Your task to perform on an android device: turn off location Image 0: 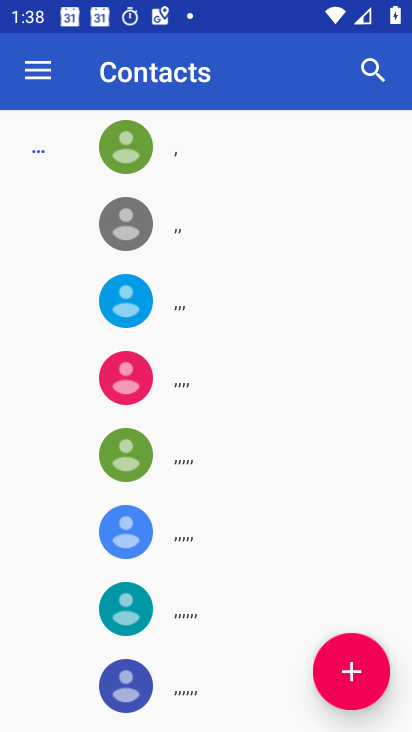
Step 0: press home button
Your task to perform on an android device: turn off location Image 1: 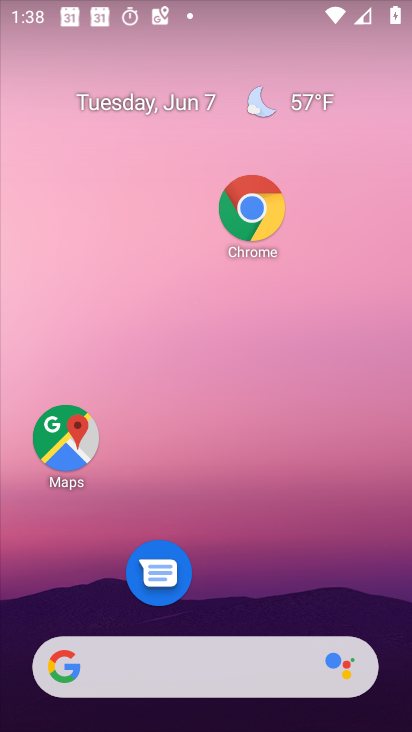
Step 1: drag from (209, 590) to (211, 362)
Your task to perform on an android device: turn off location Image 2: 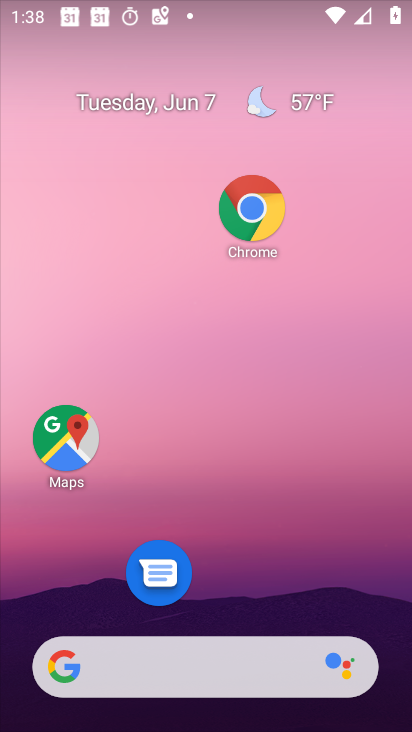
Step 2: drag from (214, 603) to (214, 217)
Your task to perform on an android device: turn off location Image 3: 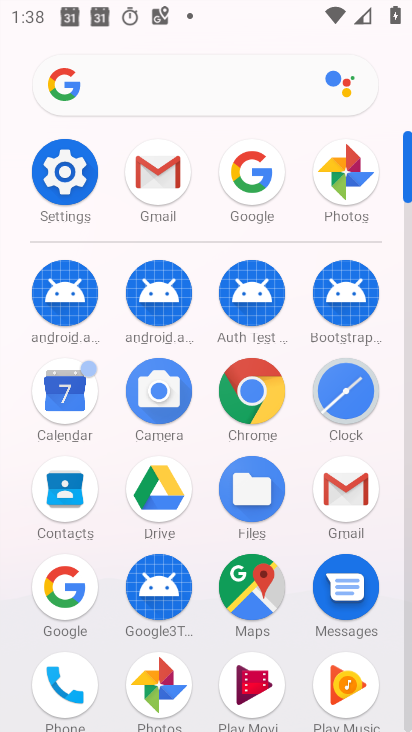
Step 3: click (59, 170)
Your task to perform on an android device: turn off location Image 4: 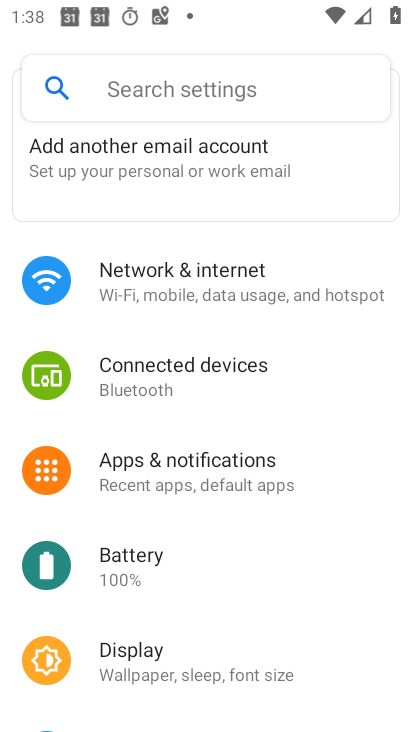
Step 4: drag from (199, 617) to (215, 311)
Your task to perform on an android device: turn off location Image 5: 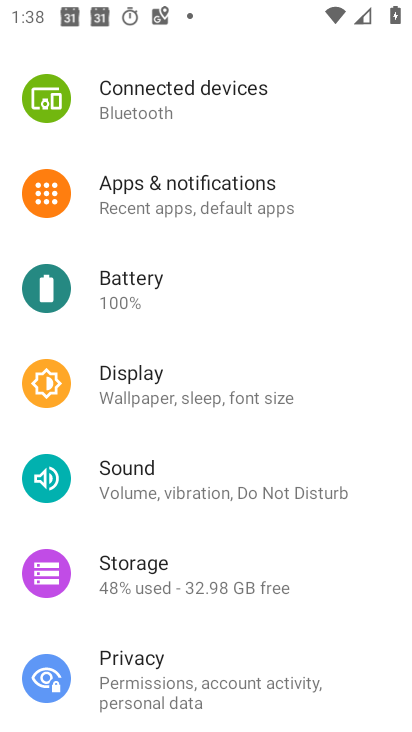
Step 5: drag from (200, 574) to (225, 295)
Your task to perform on an android device: turn off location Image 6: 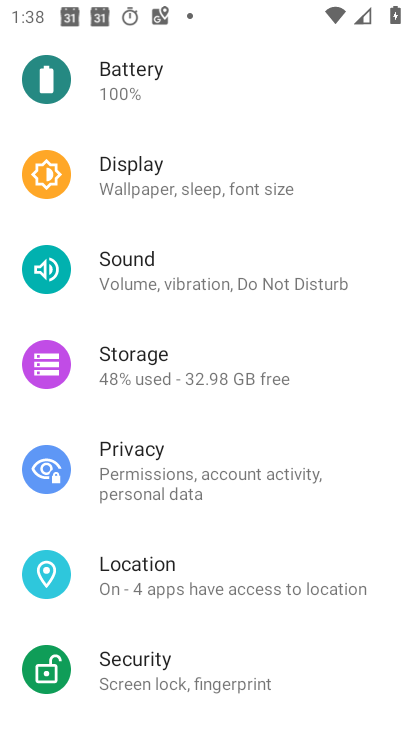
Step 6: click (190, 572)
Your task to perform on an android device: turn off location Image 7: 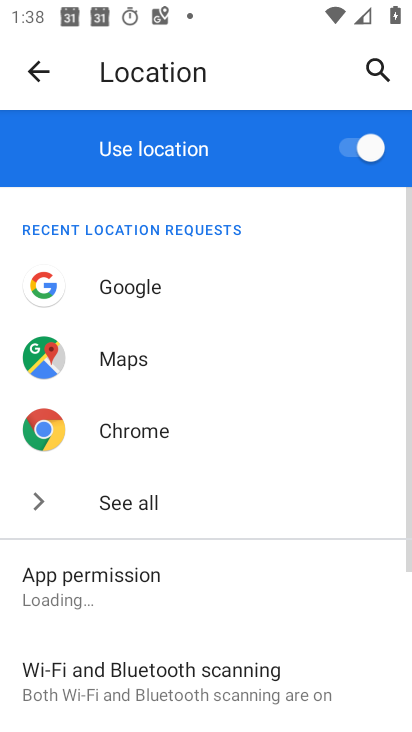
Step 7: click (355, 157)
Your task to perform on an android device: turn off location Image 8: 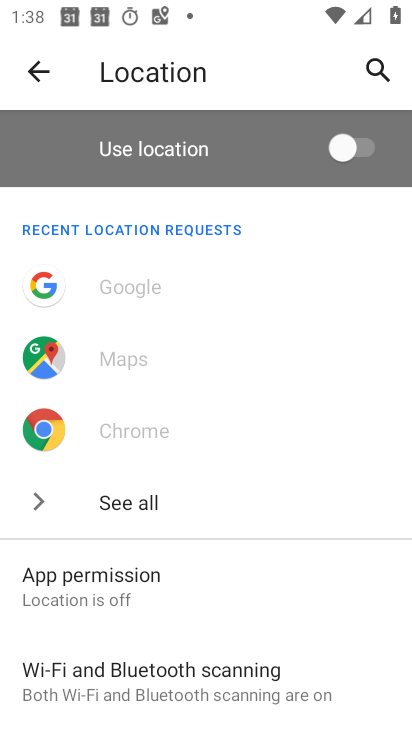
Step 8: task complete